Your task to perform on an android device: install app "Spotify" Image 0: 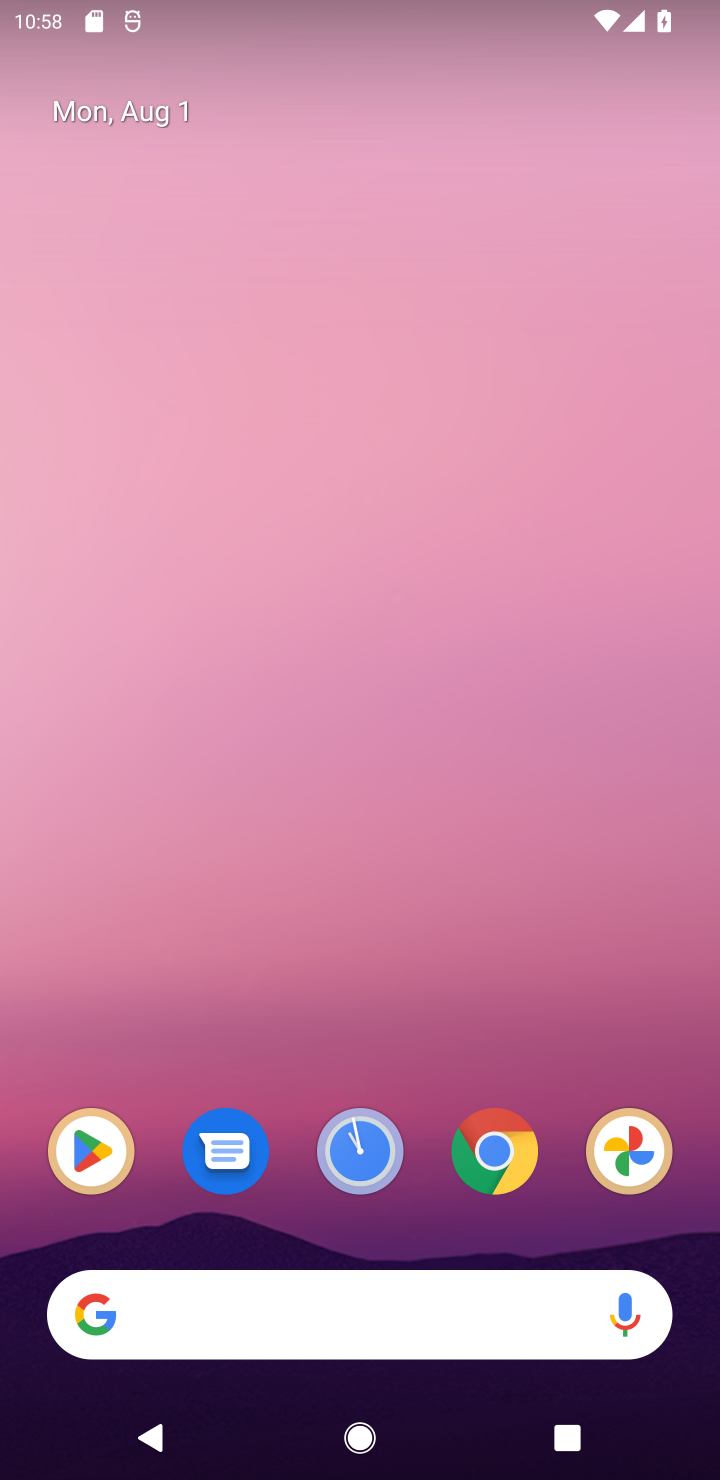
Step 0: drag from (345, 1000) to (278, 15)
Your task to perform on an android device: install app "Spotify" Image 1: 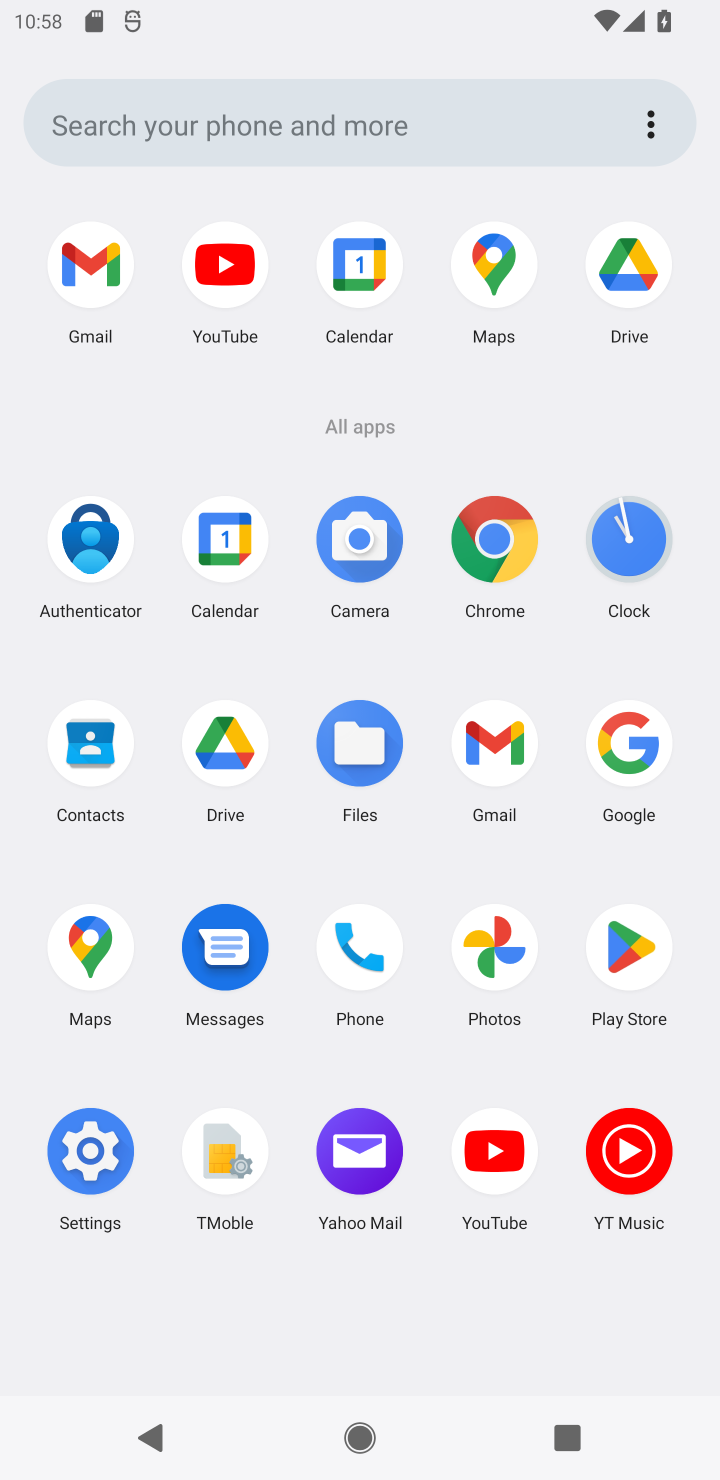
Step 1: click (639, 974)
Your task to perform on an android device: install app "Spotify" Image 2: 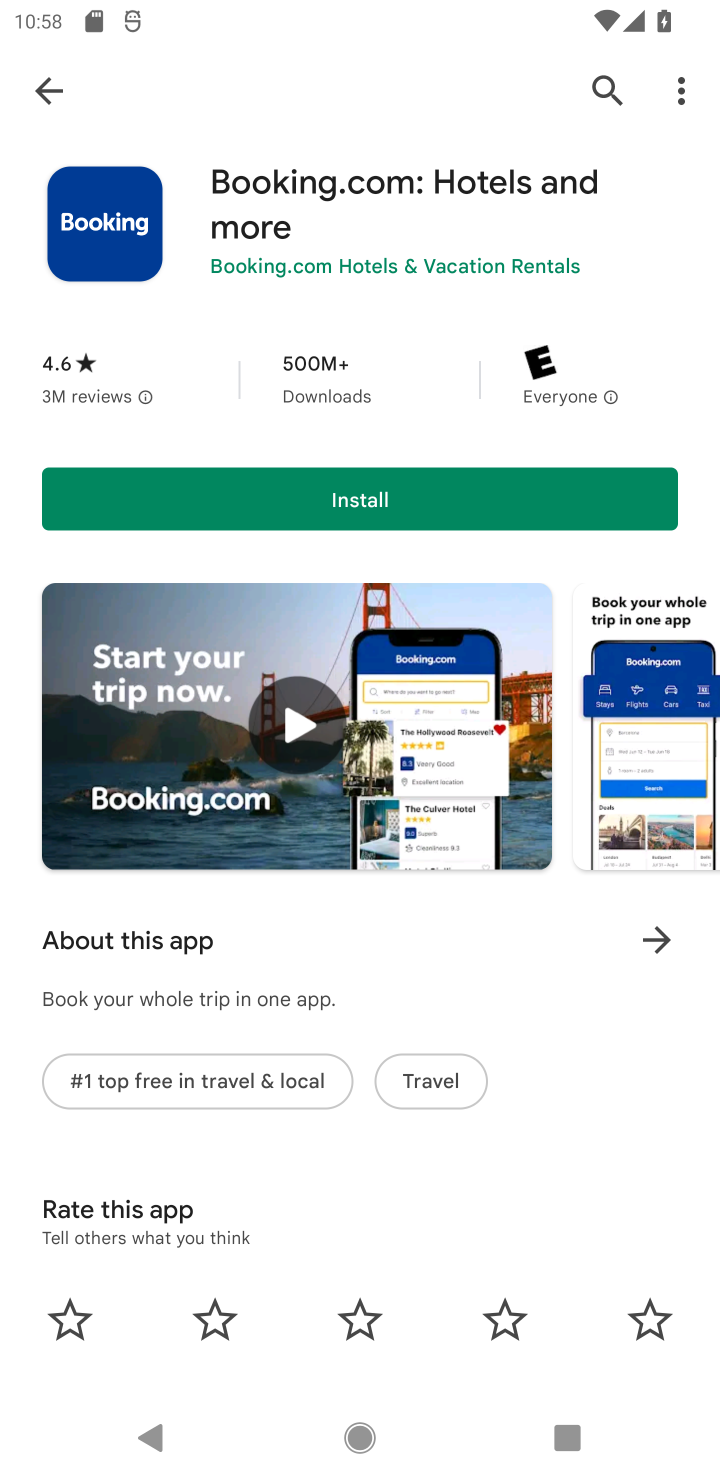
Step 2: click (36, 84)
Your task to perform on an android device: install app "Spotify" Image 3: 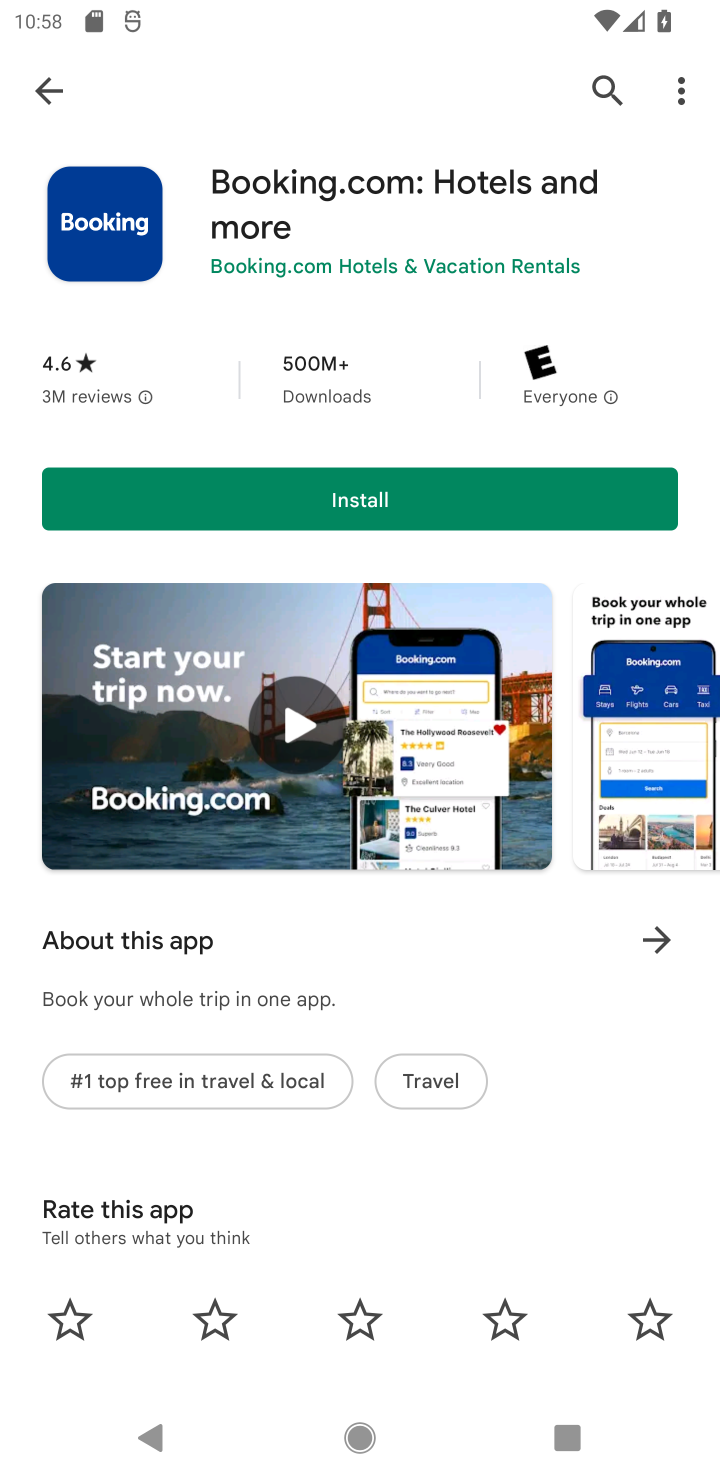
Step 3: click (57, 82)
Your task to perform on an android device: install app "Spotify" Image 4: 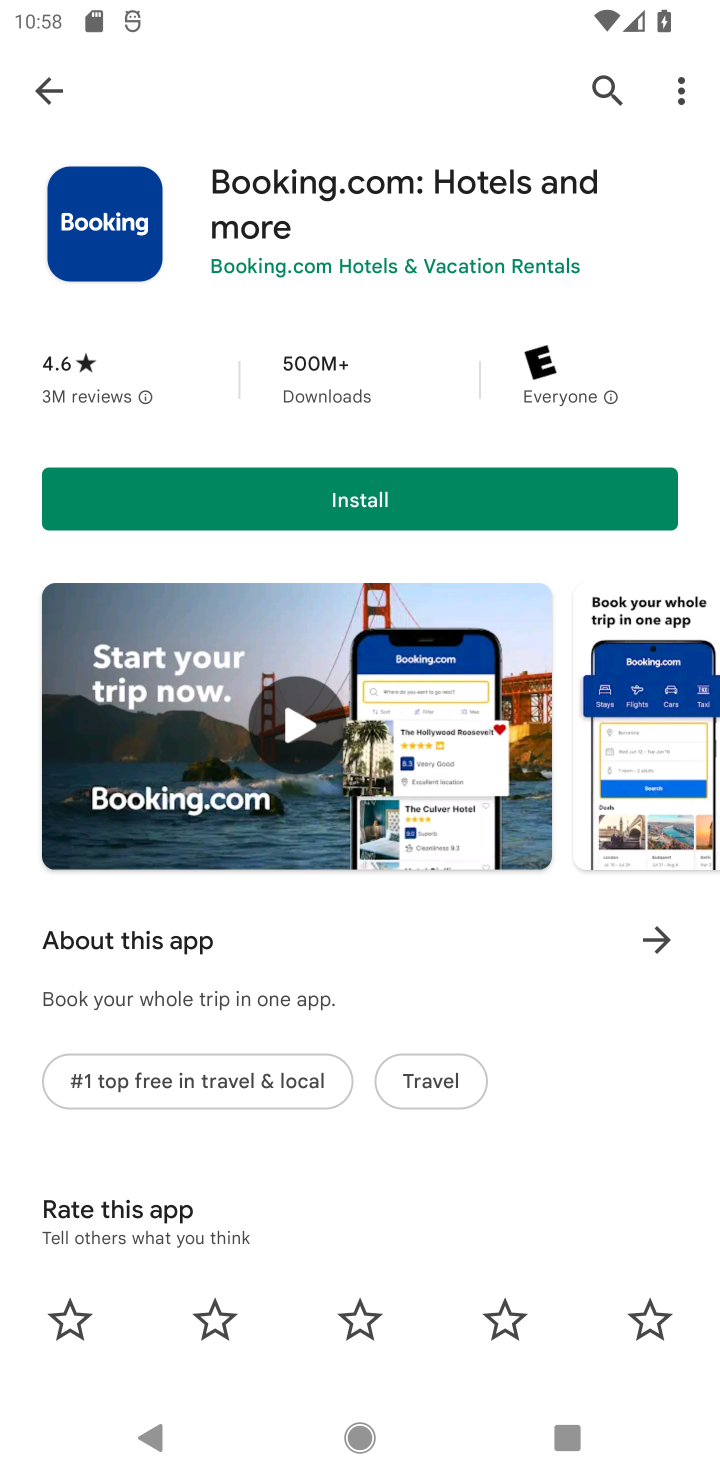
Step 4: click (52, 91)
Your task to perform on an android device: install app "Spotify" Image 5: 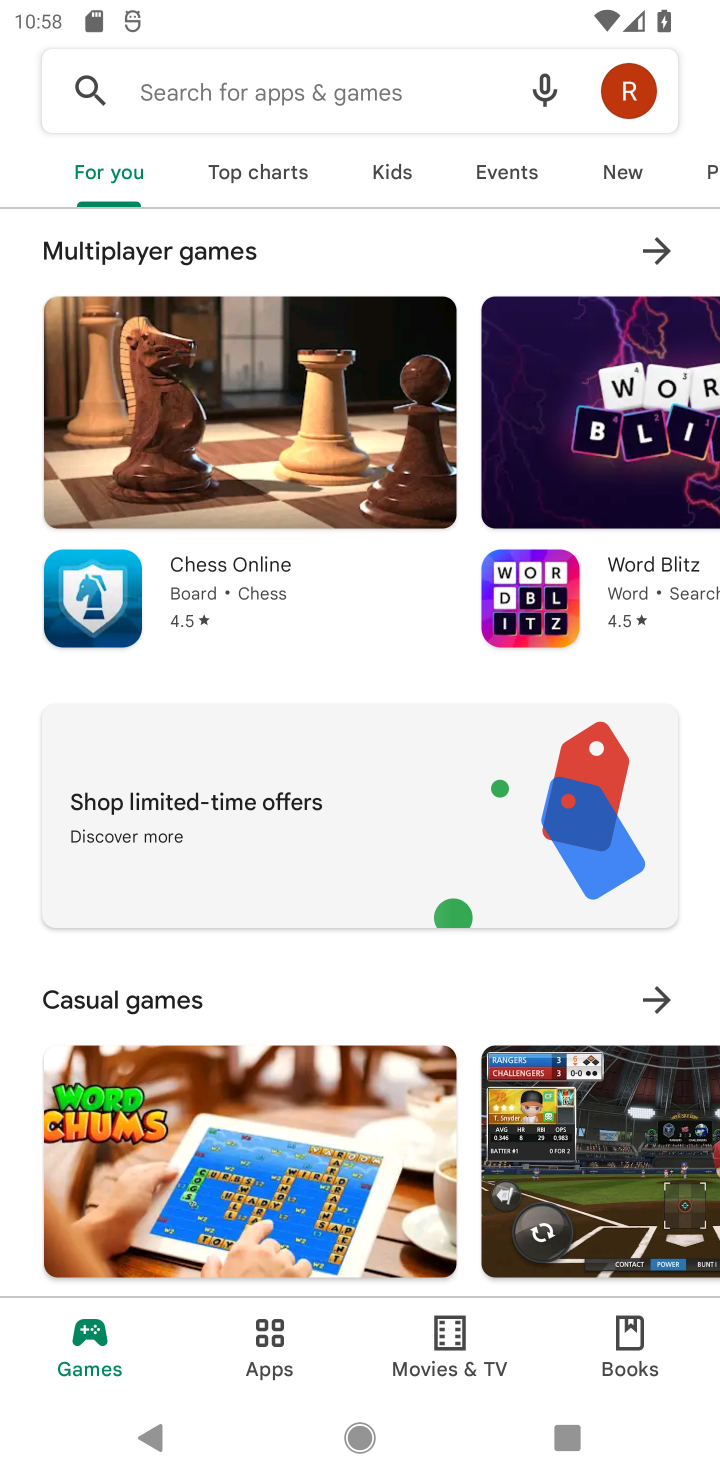
Step 5: click (150, 90)
Your task to perform on an android device: install app "Spotify" Image 6: 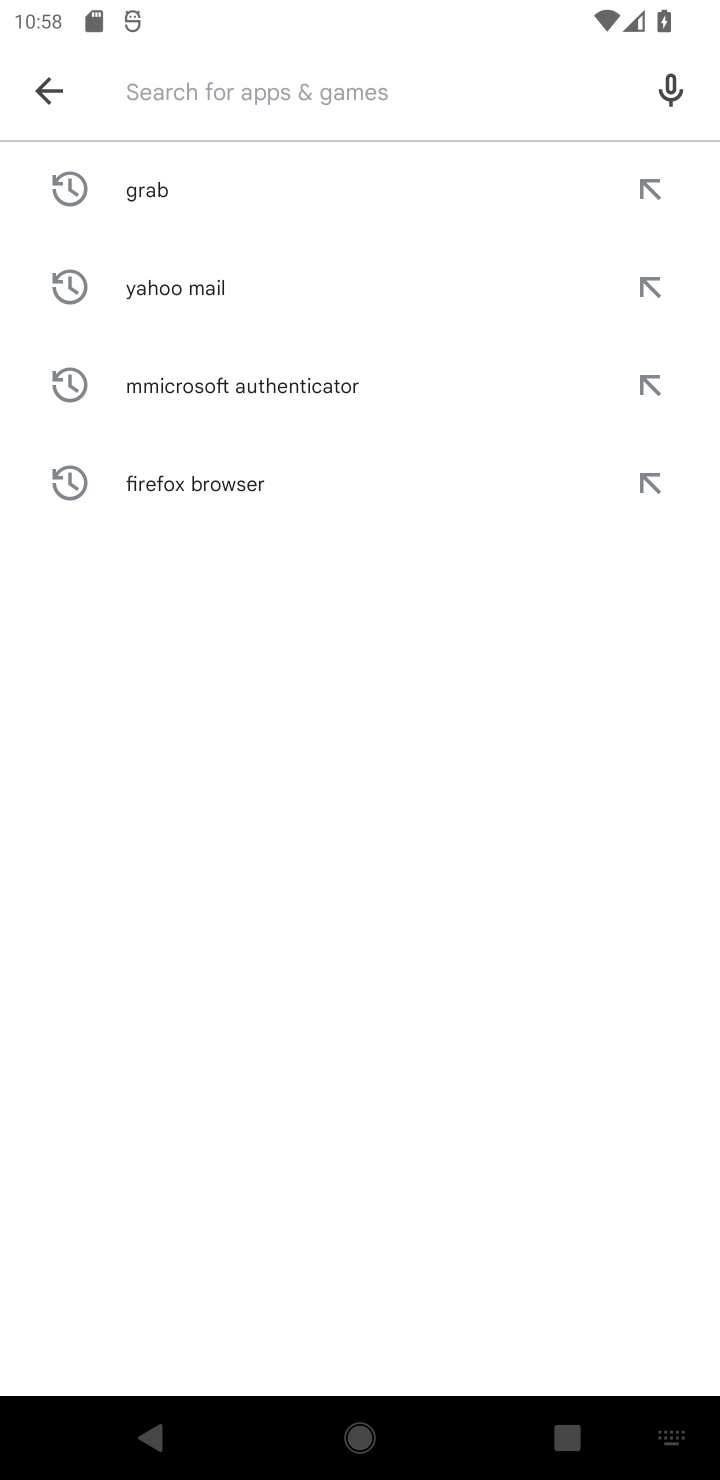
Step 6: type "Spotify"
Your task to perform on an android device: install app "Spotify" Image 7: 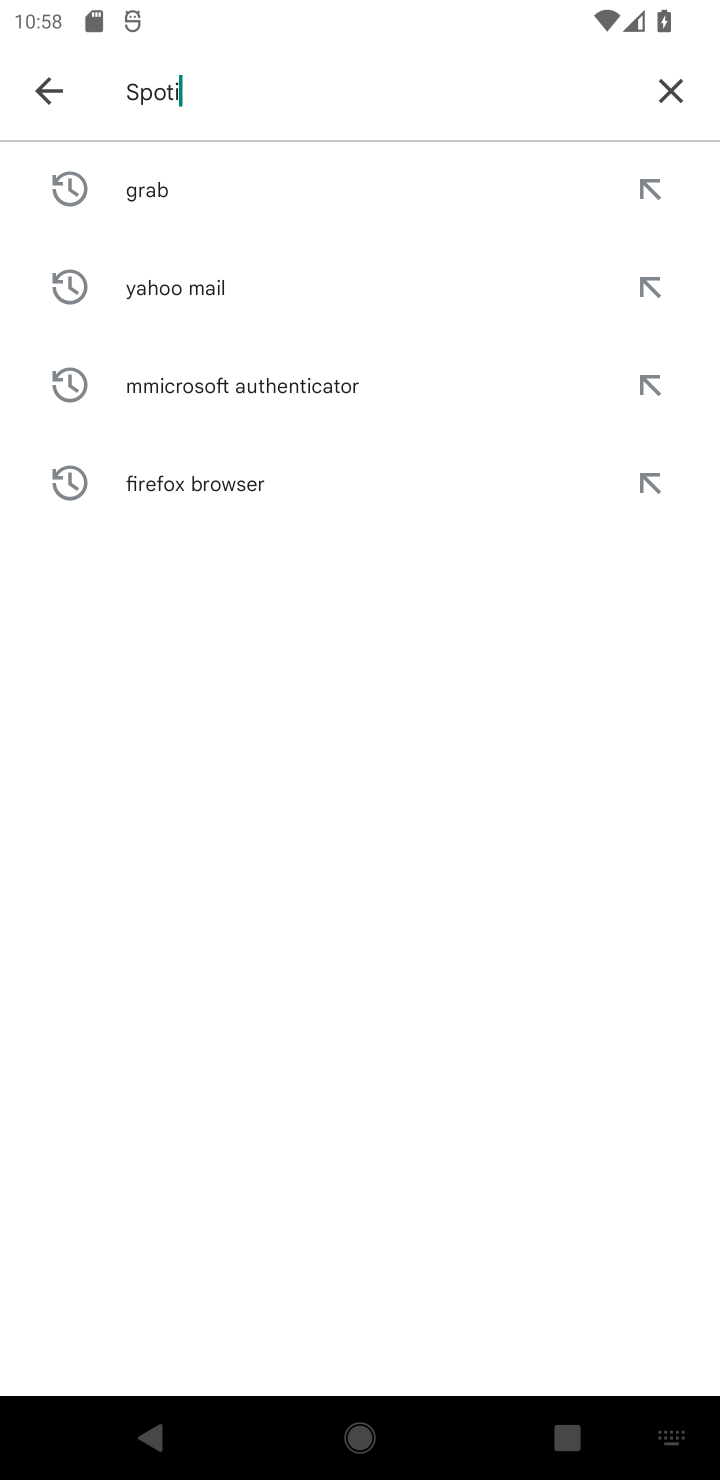
Step 7: type ""
Your task to perform on an android device: install app "Spotify" Image 8: 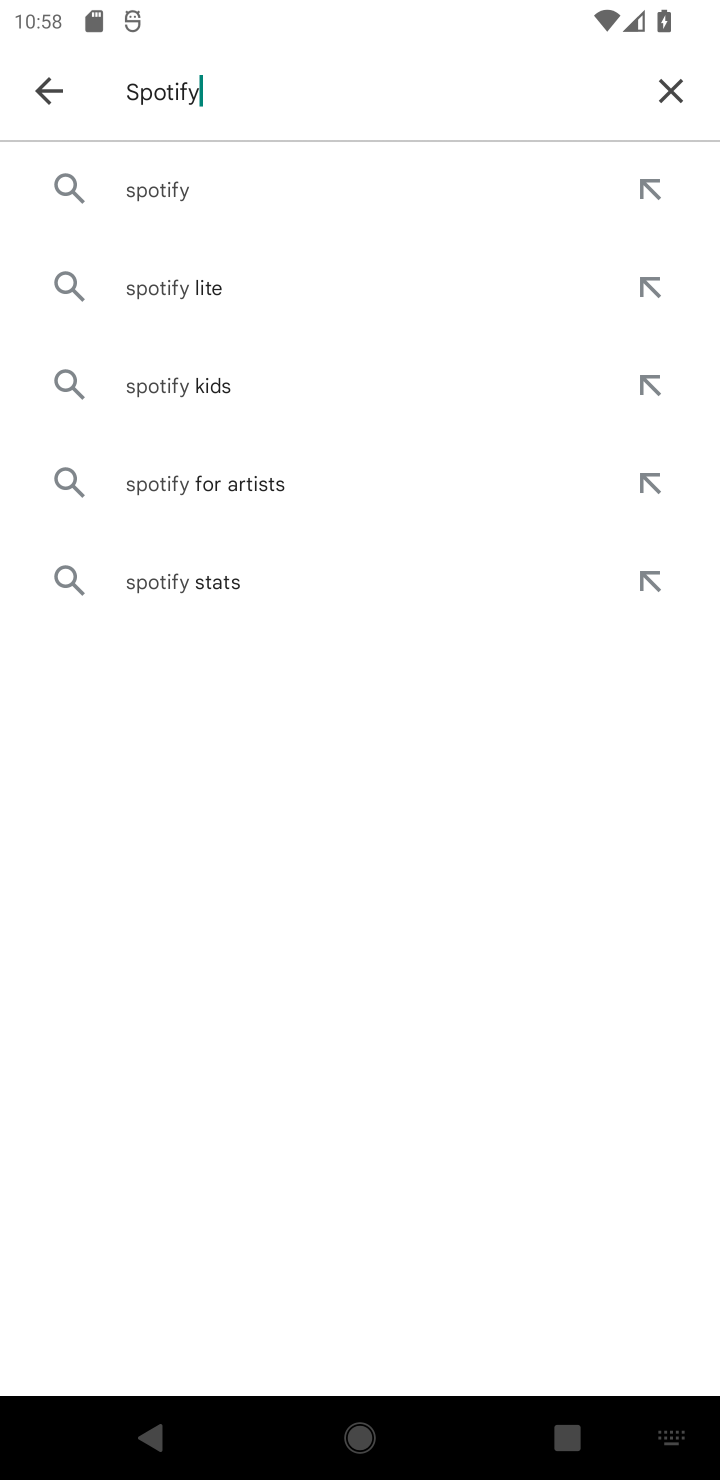
Step 8: click (180, 181)
Your task to perform on an android device: install app "Spotify" Image 9: 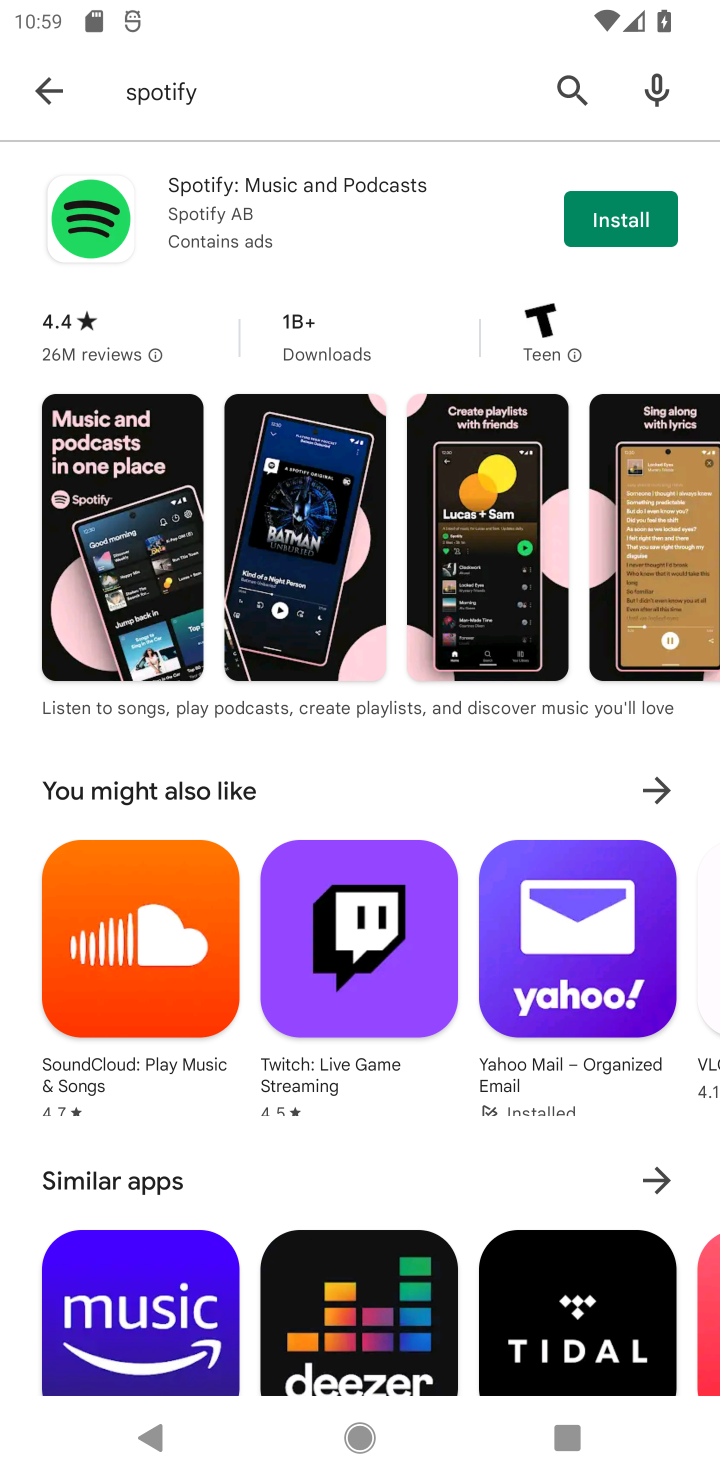
Step 9: click (618, 203)
Your task to perform on an android device: install app "Spotify" Image 10: 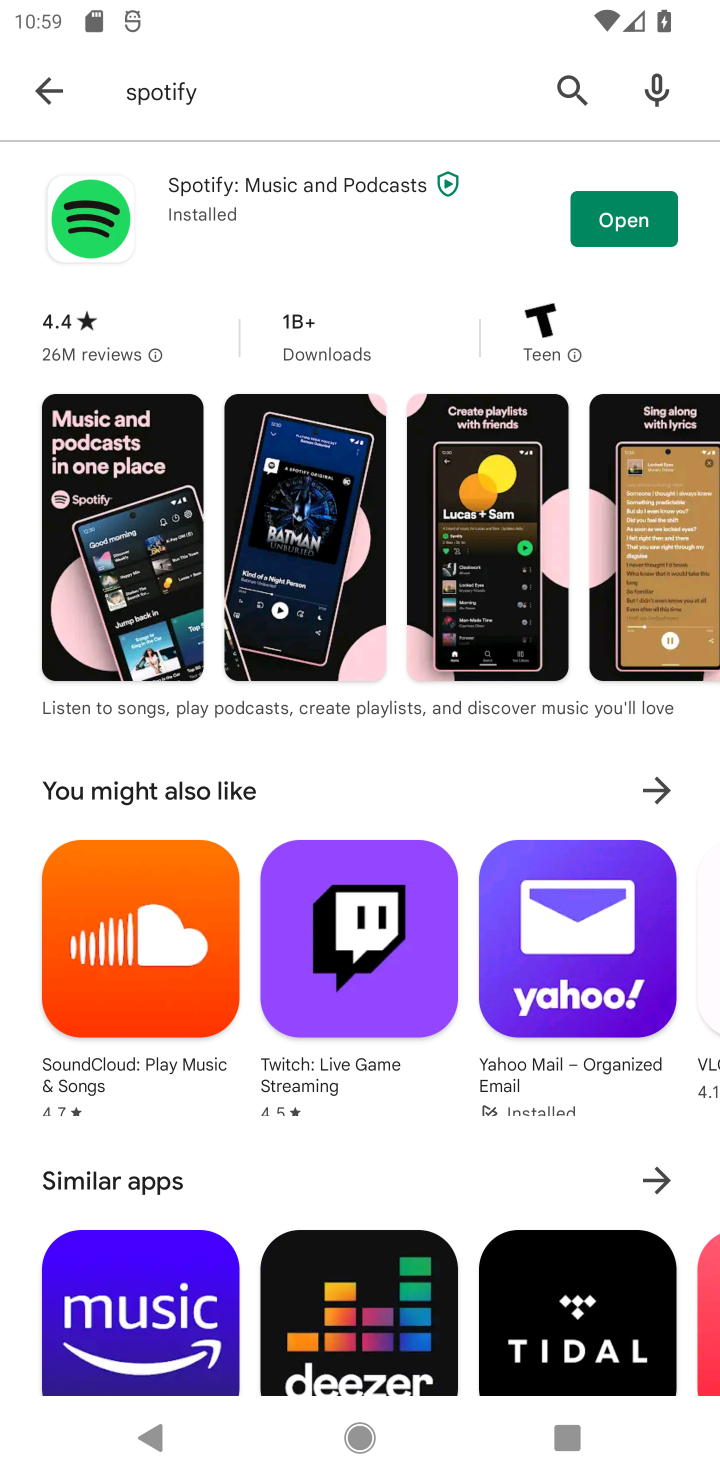
Step 10: task complete